Your task to perform on an android device: What is the news today? Image 0: 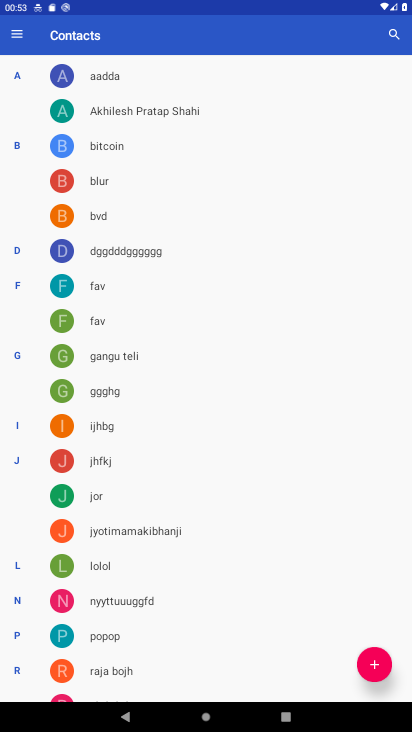
Step 0: press home button
Your task to perform on an android device: What is the news today? Image 1: 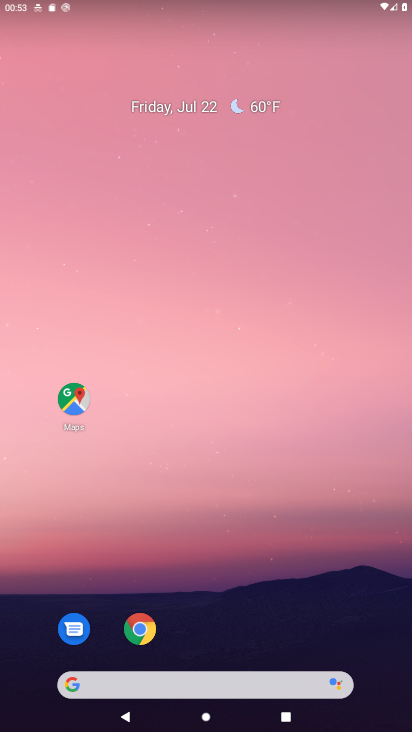
Step 1: click (139, 621)
Your task to perform on an android device: What is the news today? Image 2: 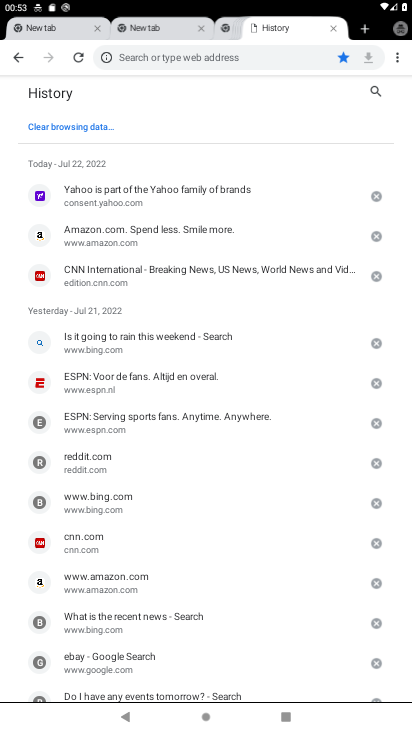
Step 2: click (368, 28)
Your task to perform on an android device: What is the news today? Image 3: 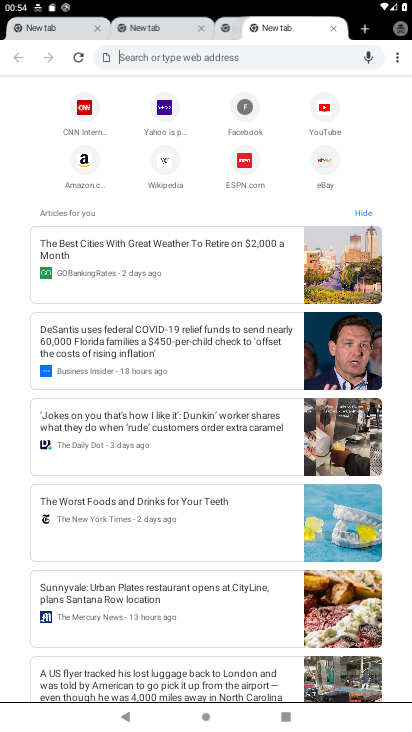
Step 3: click (220, 54)
Your task to perform on an android device: What is the news today? Image 4: 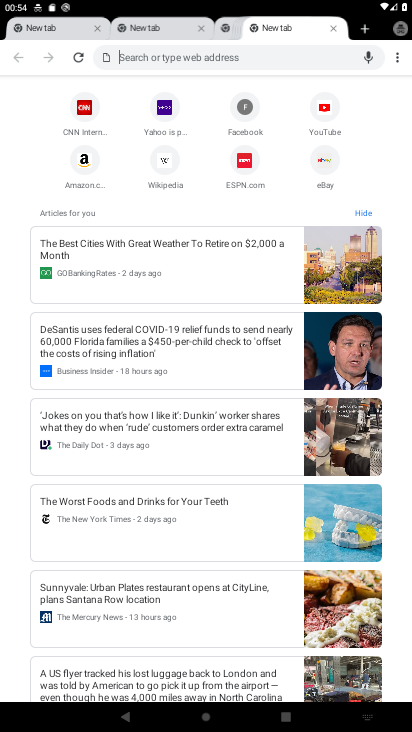
Step 4: type "What is the news today "
Your task to perform on an android device: What is the news today? Image 5: 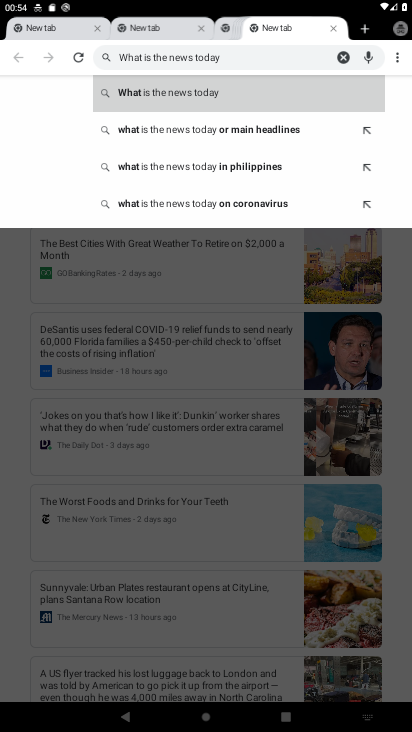
Step 5: click (155, 78)
Your task to perform on an android device: What is the news today? Image 6: 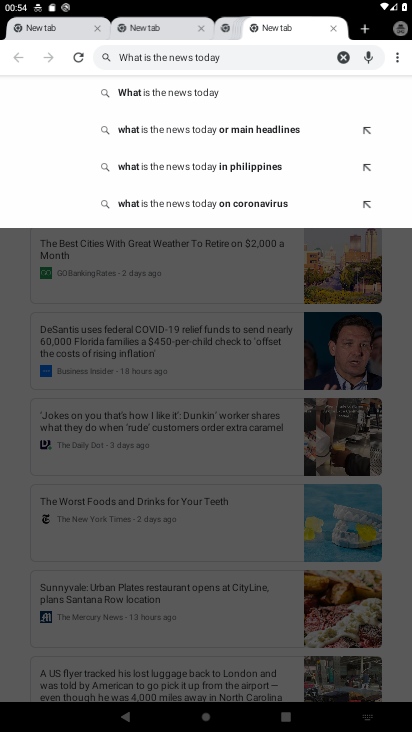
Step 6: click (179, 88)
Your task to perform on an android device: What is the news today? Image 7: 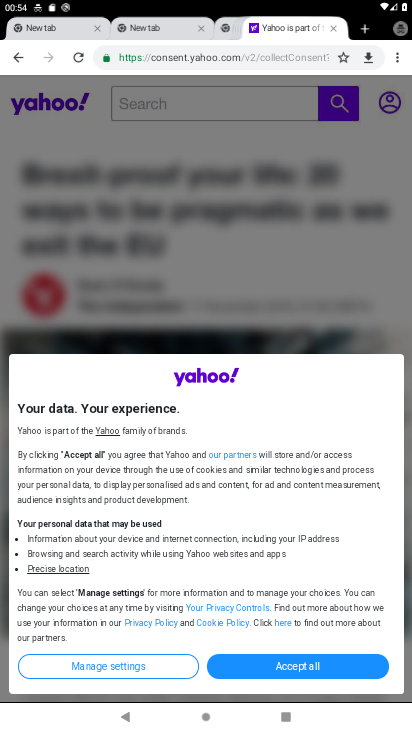
Step 7: click (371, 31)
Your task to perform on an android device: What is the news today? Image 8: 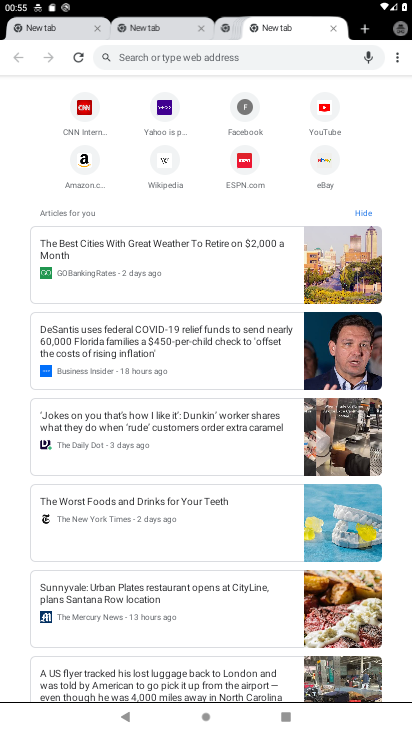
Step 8: click (240, 46)
Your task to perform on an android device: What is the news today? Image 9: 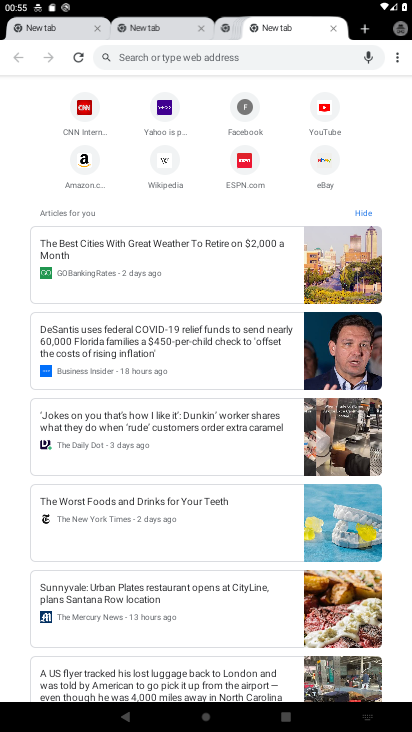
Step 9: type "What is the news today? "
Your task to perform on an android device: What is the news today? Image 10: 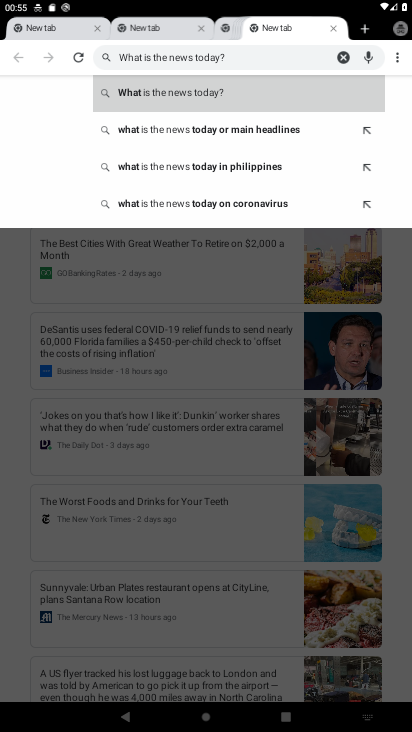
Step 10: click (268, 94)
Your task to perform on an android device: What is the news today? Image 11: 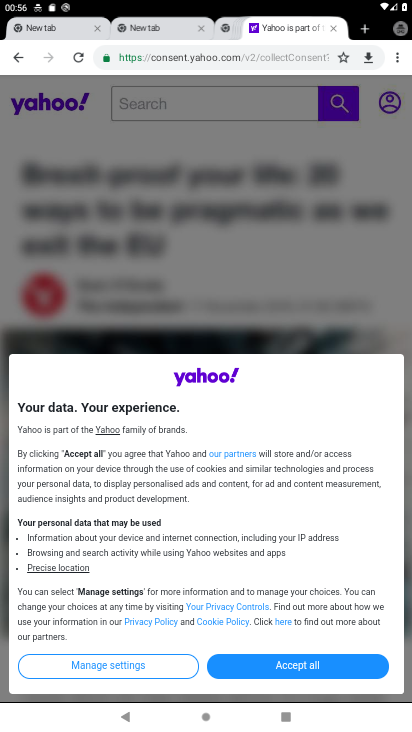
Step 11: task complete